Your task to perform on an android device: Go to Google maps Image 0: 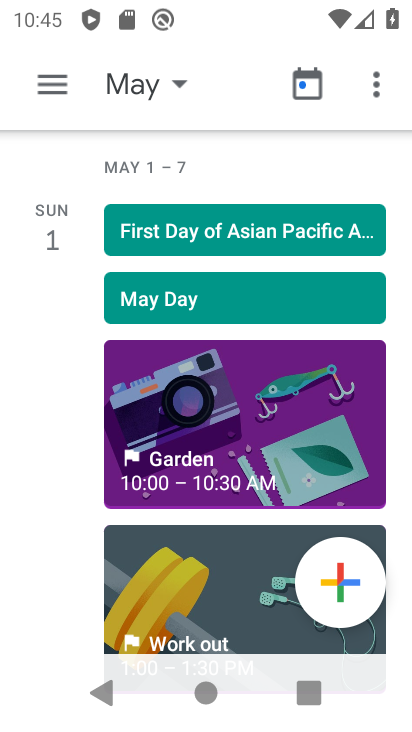
Step 0: press home button
Your task to perform on an android device: Go to Google maps Image 1: 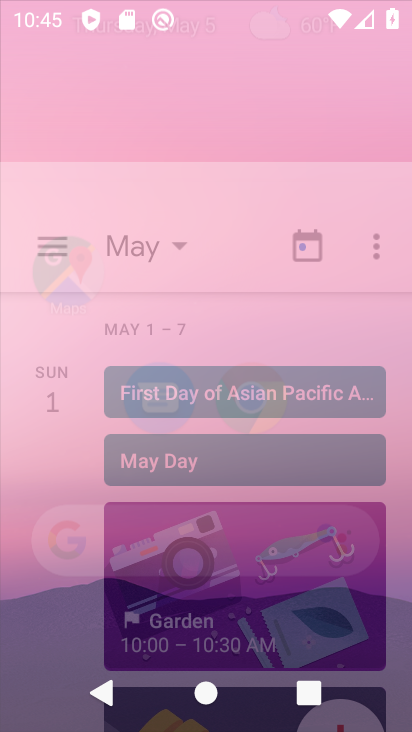
Step 1: press home button
Your task to perform on an android device: Go to Google maps Image 2: 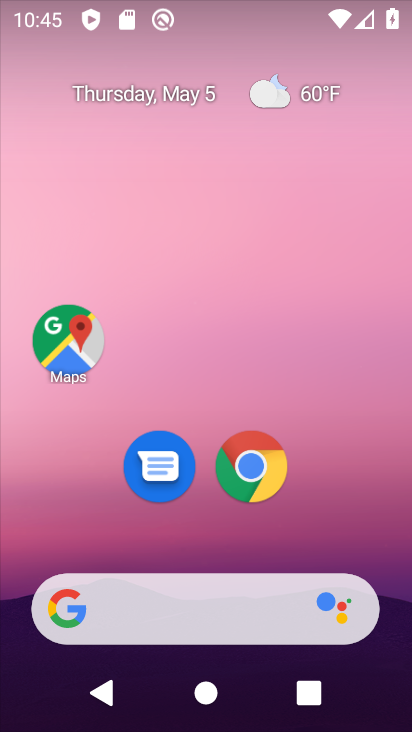
Step 2: drag from (198, 578) to (311, 172)
Your task to perform on an android device: Go to Google maps Image 3: 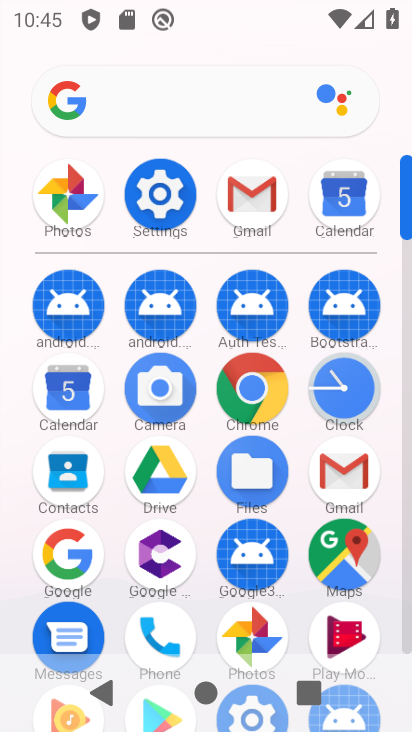
Step 3: drag from (139, 570) to (180, 267)
Your task to perform on an android device: Go to Google maps Image 4: 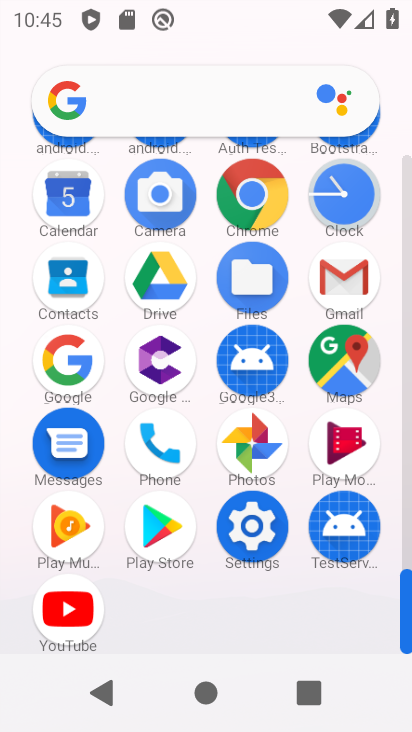
Step 4: click (345, 378)
Your task to perform on an android device: Go to Google maps Image 5: 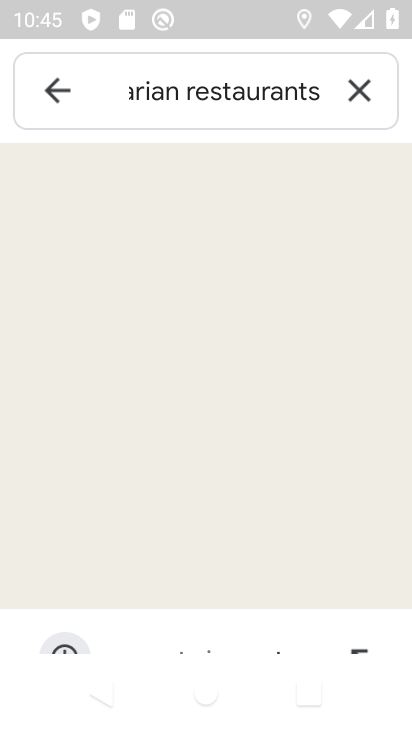
Step 5: drag from (213, 559) to (179, 237)
Your task to perform on an android device: Go to Google maps Image 6: 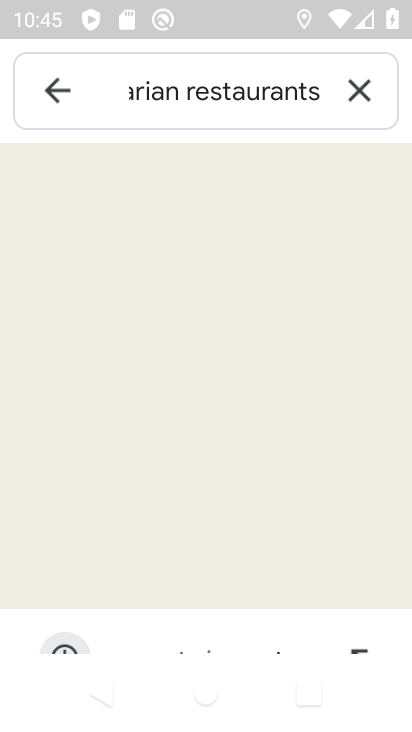
Step 6: drag from (161, 500) to (227, 195)
Your task to perform on an android device: Go to Google maps Image 7: 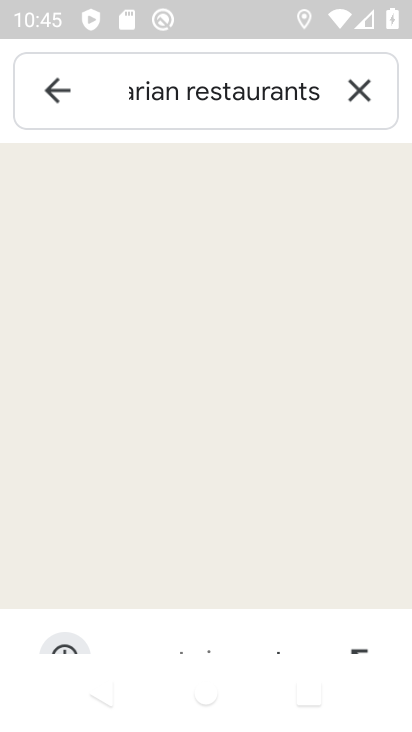
Step 7: click (59, 97)
Your task to perform on an android device: Go to Google maps Image 8: 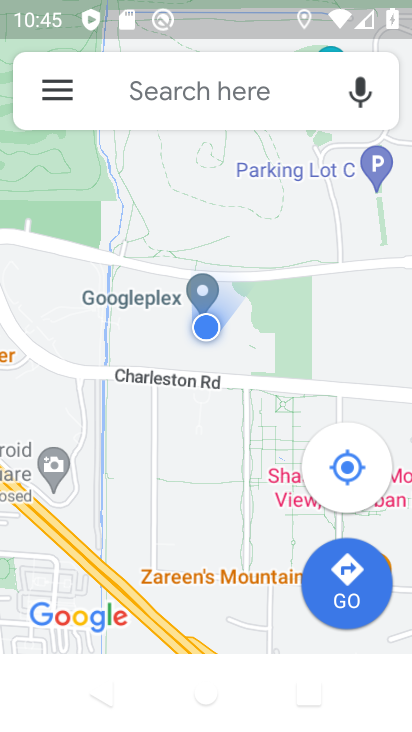
Step 8: task complete